Your task to perform on an android device: turn off data saver in the chrome app Image 0: 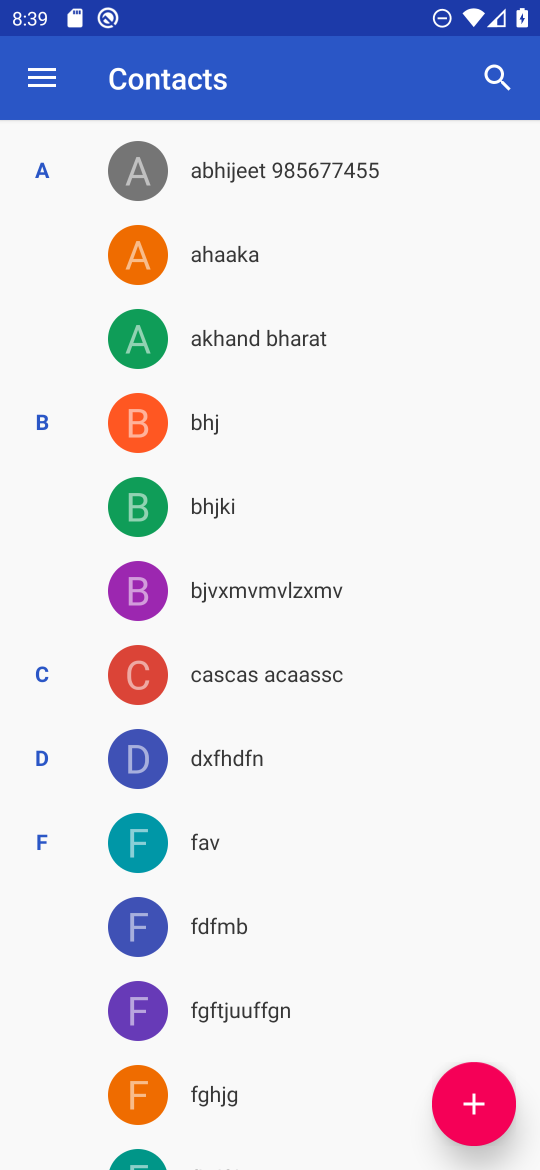
Step 0: press home button
Your task to perform on an android device: turn off data saver in the chrome app Image 1: 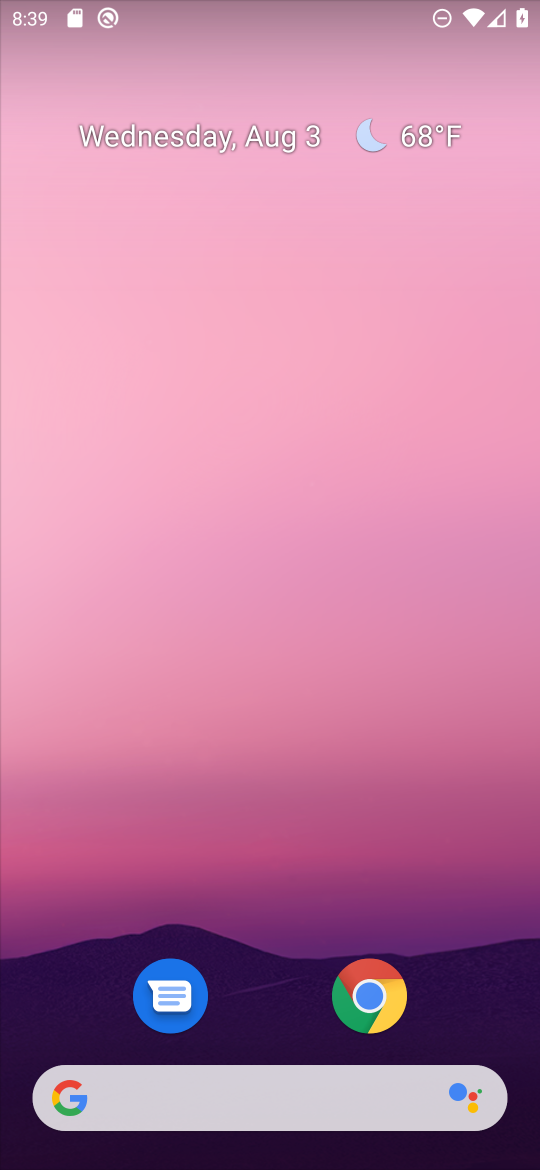
Step 1: click (377, 991)
Your task to perform on an android device: turn off data saver in the chrome app Image 2: 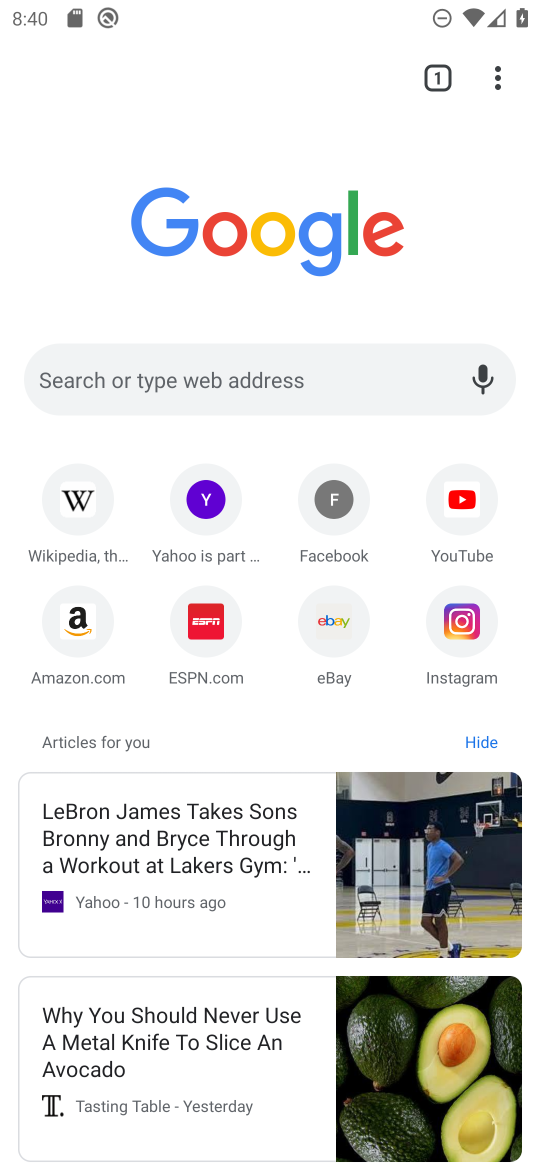
Step 2: click (491, 77)
Your task to perform on an android device: turn off data saver in the chrome app Image 3: 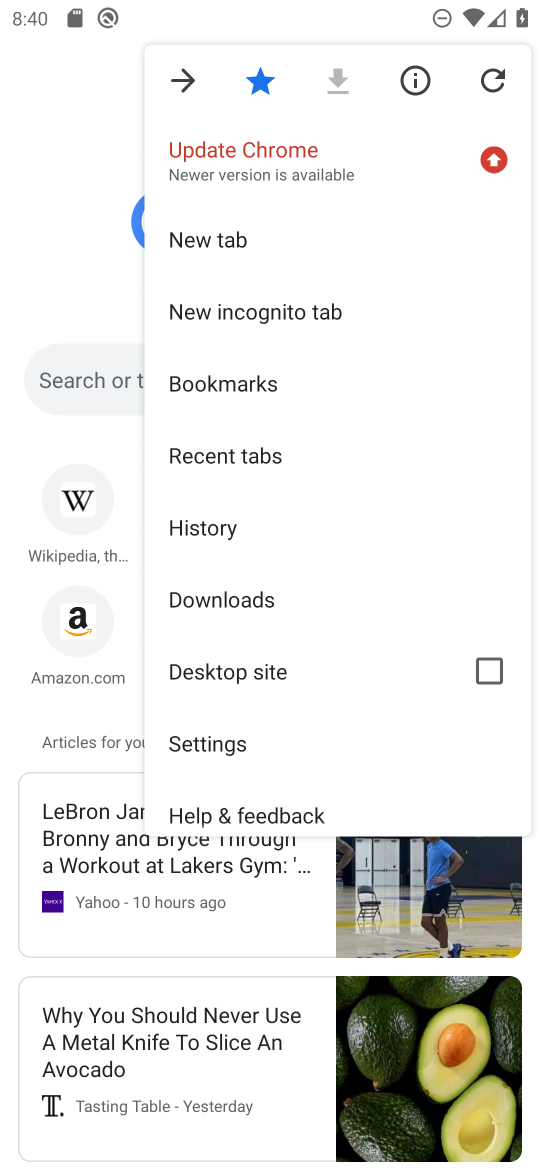
Step 3: click (254, 733)
Your task to perform on an android device: turn off data saver in the chrome app Image 4: 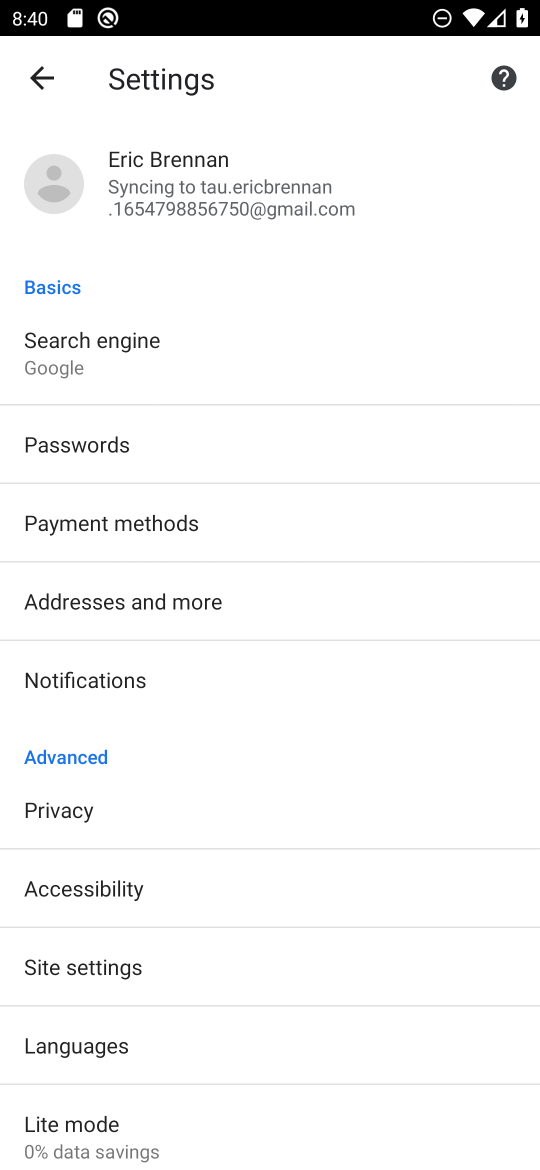
Step 4: click (270, 1136)
Your task to perform on an android device: turn off data saver in the chrome app Image 5: 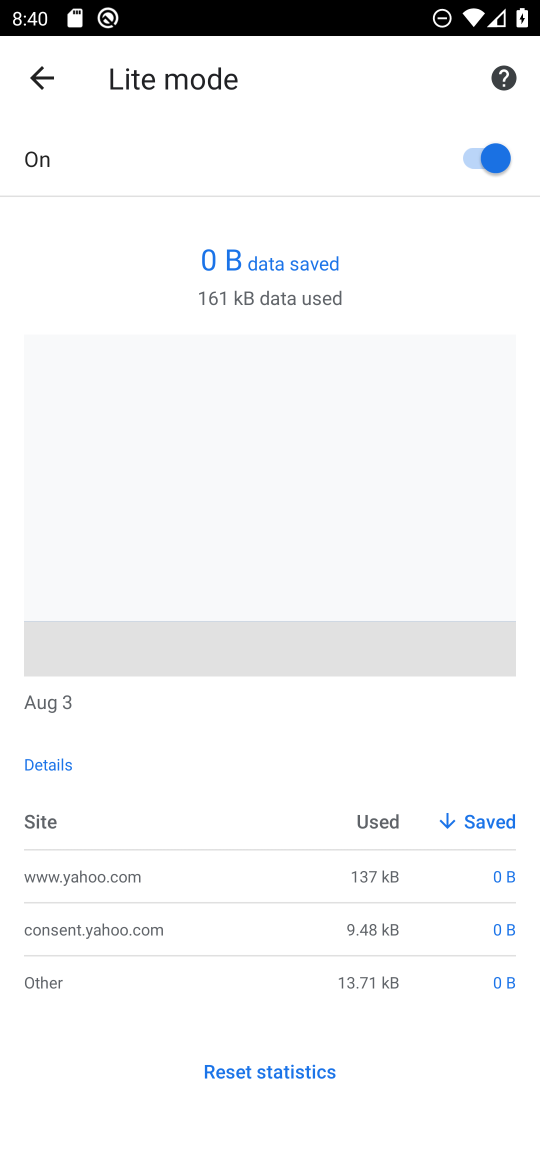
Step 5: click (478, 151)
Your task to perform on an android device: turn off data saver in the chrome app Image 6: 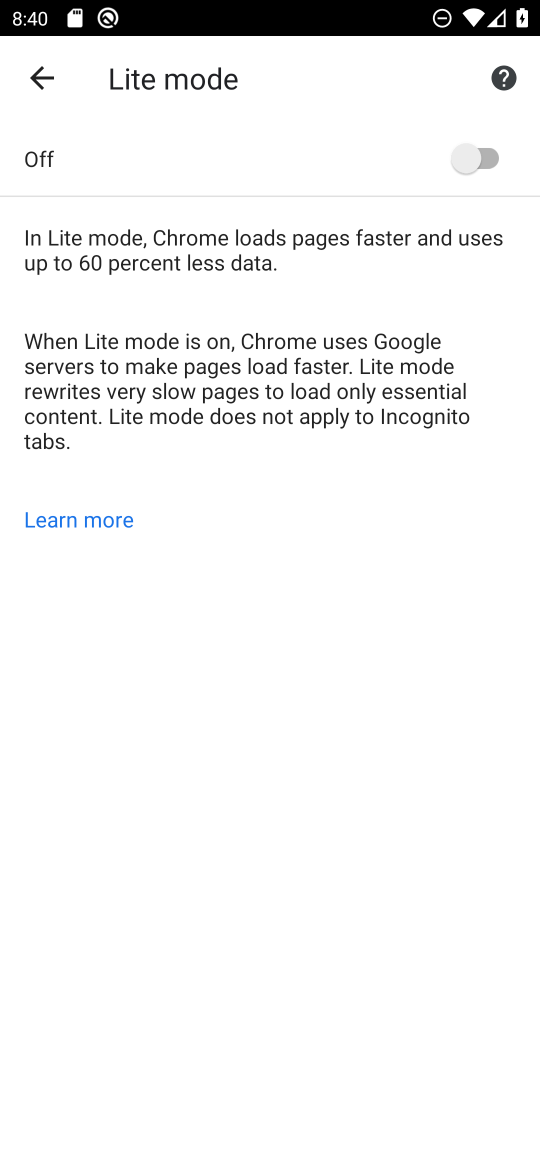
Step 6: task complete